Your task to perform on an android device: Open privacy settings Image 0: 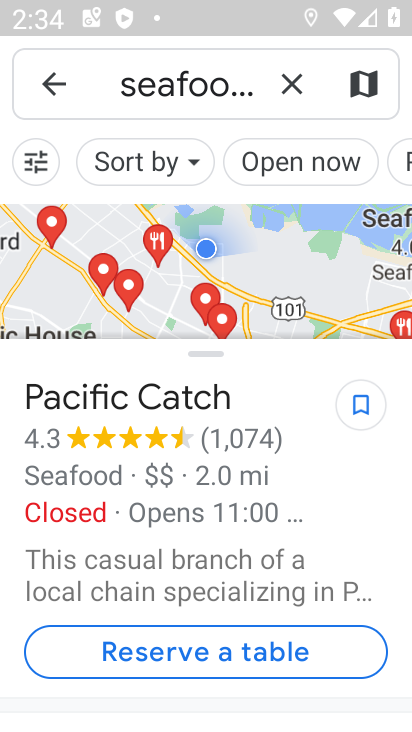
Step 0: press home button
Your task to perform on an android device: Open privacy settings Image 1: 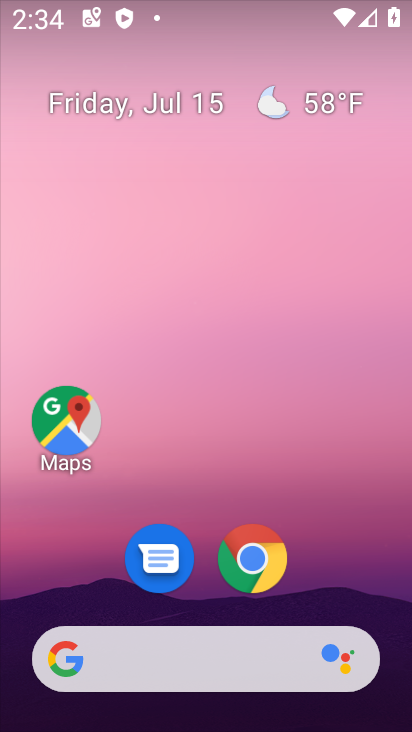
Step 1: drag from (355, 551) to (367, 76)
Your task to perform on an android device: Open privacy settings Image 2: 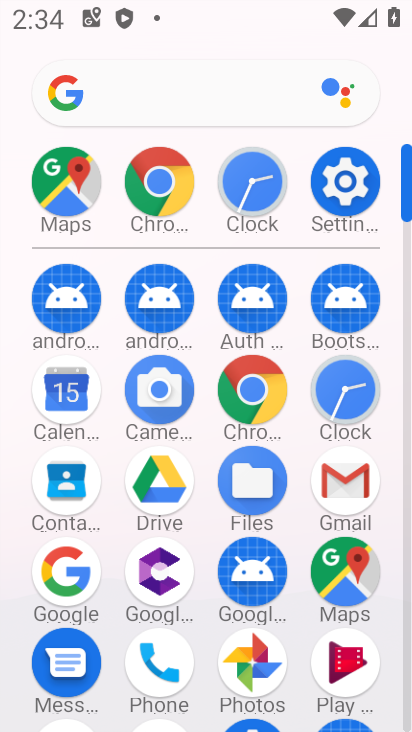
Step 2: click (348, 187)
Your task to perform on an android device: Open privacy settings Image 3: 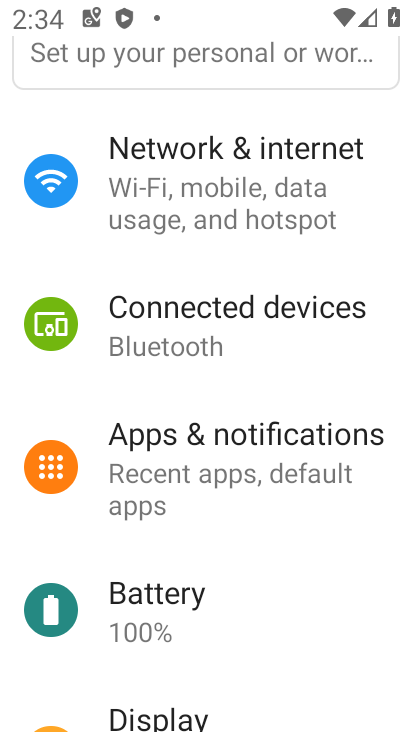
Step 3: drag from (363, 191) to (364, 306)
Your task to perform on an android device: Open privacy settings Image 4: 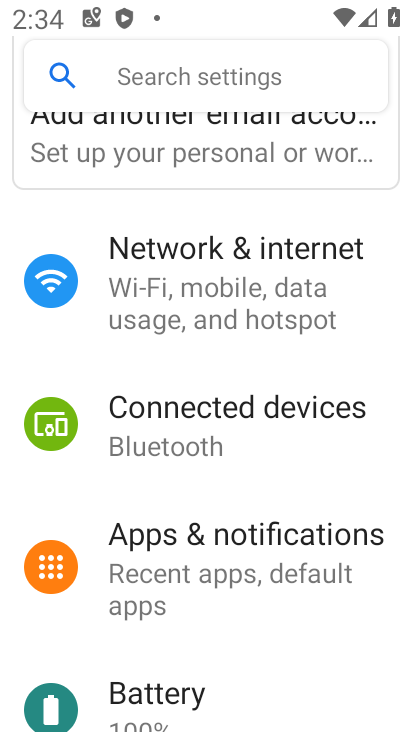
Step 4: drag from (378, 238) to (381, 449)
Your task to perform on an android device: Open privacy settings Image 5: 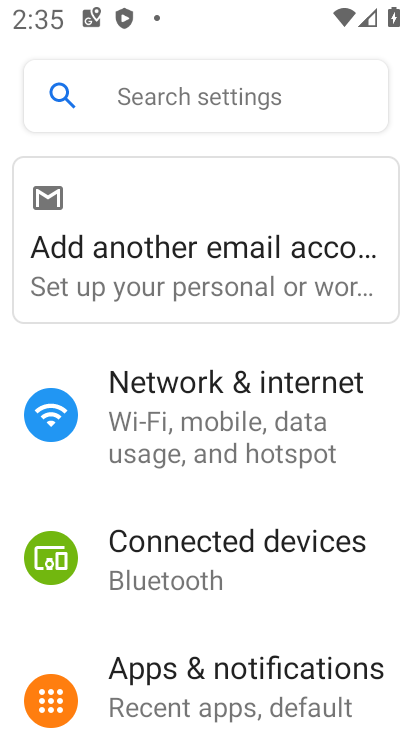
Step 5: drag from (375, 474) to (361, 365)
Your task to perform on an android device: Open privacy settings Image 6: 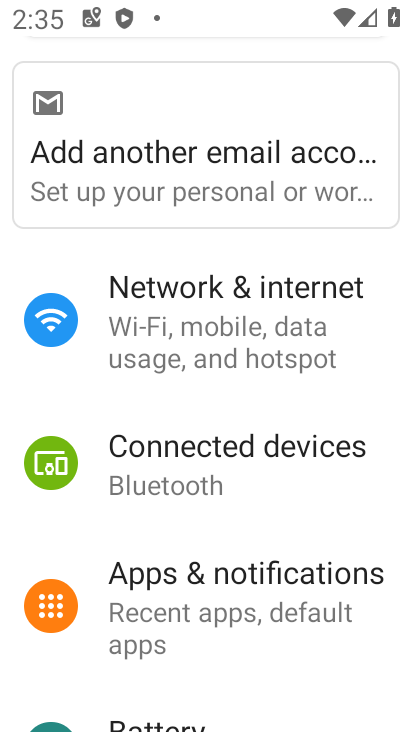
Step 6: drag from (339, 523) to (351, 417)
Your task to perform on an android device: Open privacy settings Image 7: 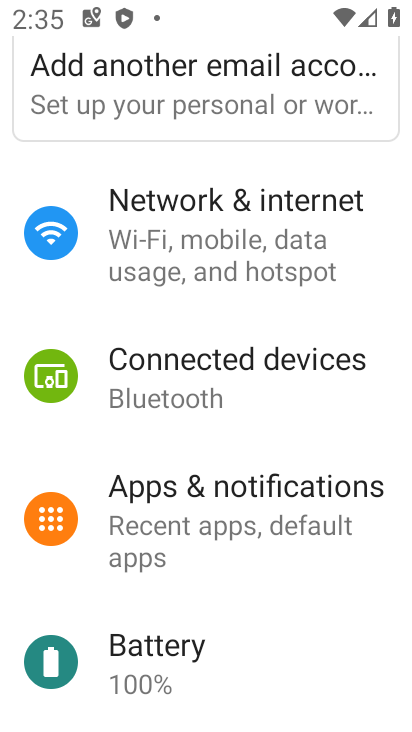
Step 7: drag from (335, 581) to (336, 474)
Your task to perform on an android device: Open privacy settings Image 8: 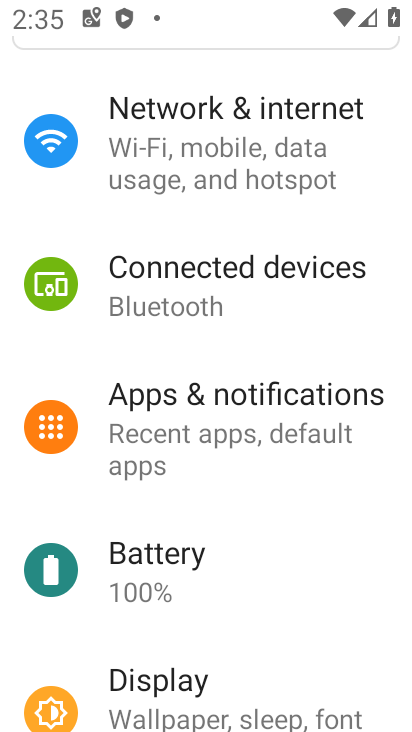
Step 8: drag from (334, 586) to (335, 466)
Your task to perform on an android device: Open privacy settings Image 9: 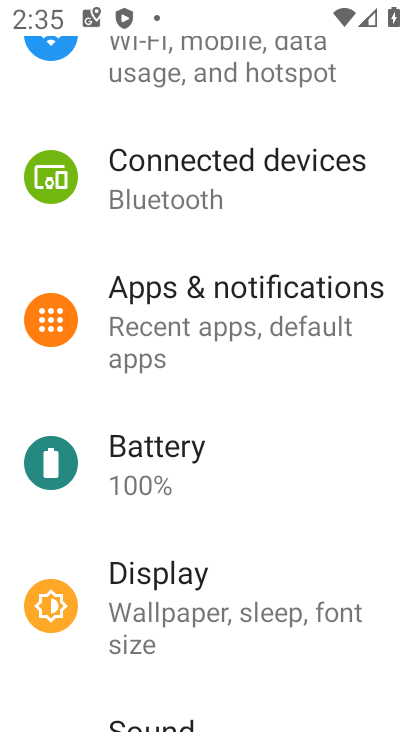
Step 9: drag from (333, 556) to (325, 459)
Your task to perform on an android device: Open privacy settings Image 10: 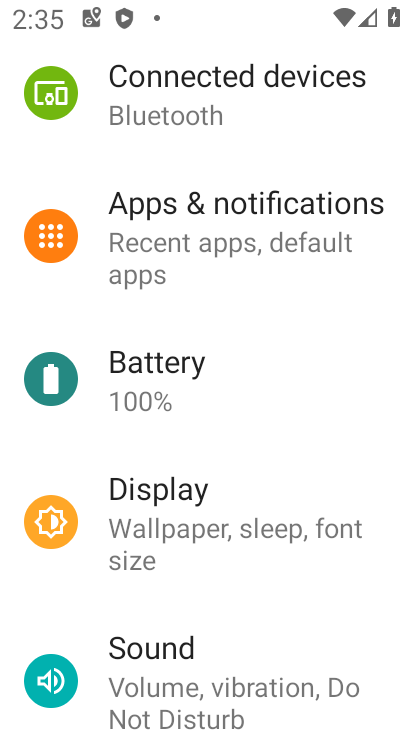
Step 10: drag from (318, 580) to (320, 475)
Your task to perform on an android device: Open privacy settings Image 11: 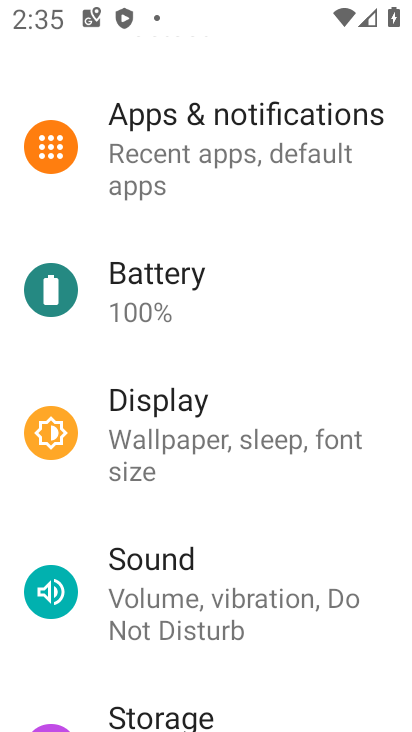
Step 11: drag from (323, 575) to (318, 482)
Your task to perform on an android device: Open privacy settings Image 12: 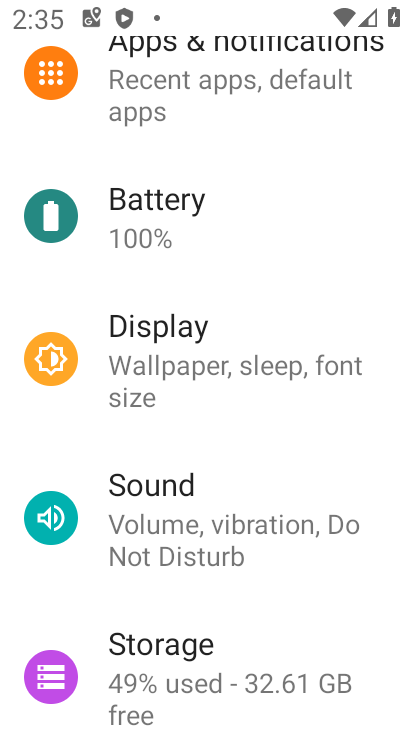
Step 12: drag from (318, 580) to (312, 474)
Your task to perform on an android device: Open privacy settings Image 13: 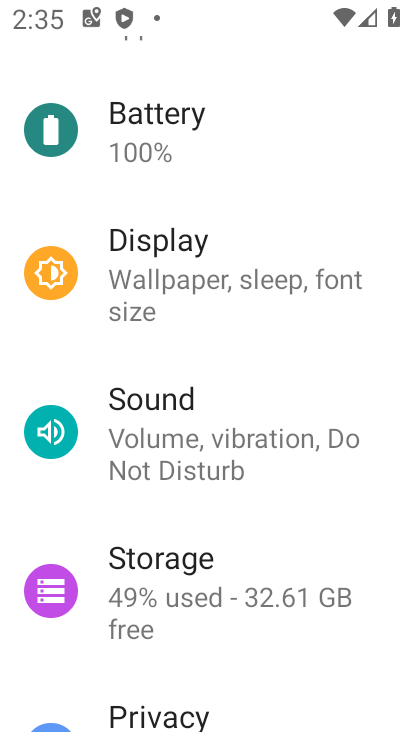
Step 13: drag from (327, 639) to (328, 500)
Your task to perform on an android device: Open privacy settings Image 14: 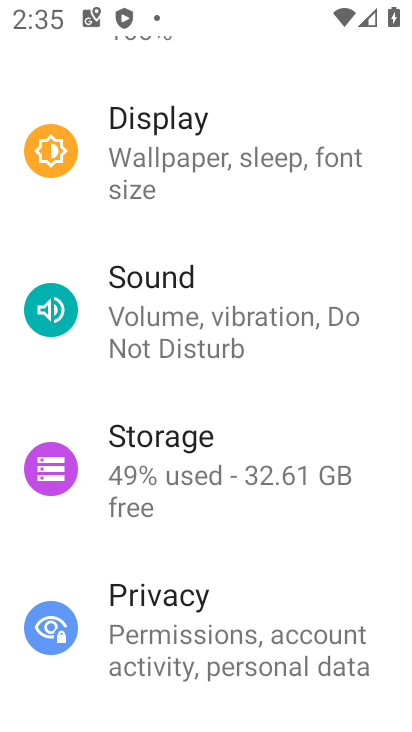
Step 14: drag from (334, 584) to (332, 462)
Your task to perform on an android device: Open privacy settings Image 15: 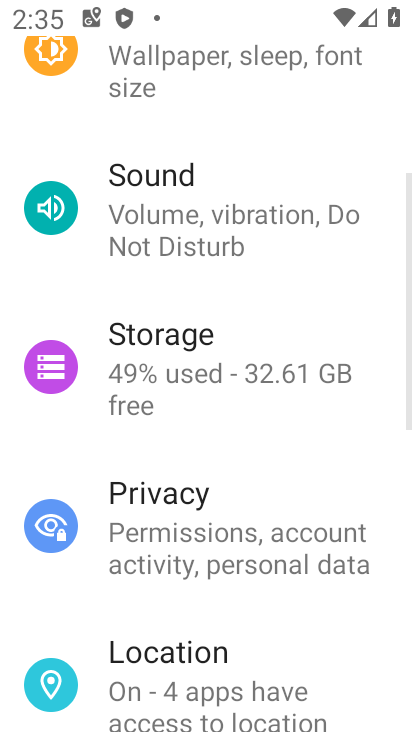
Step 15: click (312, 546)
Your task to perform on an android device: Open privacy settings Image 16: 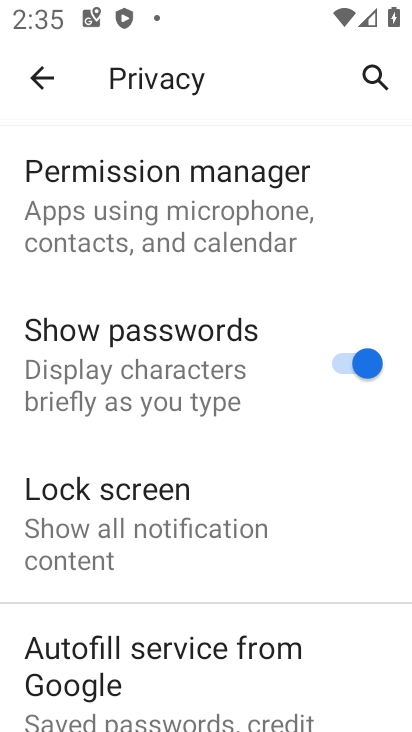
Step 16: task complete